Your task to perform on an android device: empty trash in the gmail app Image 0: 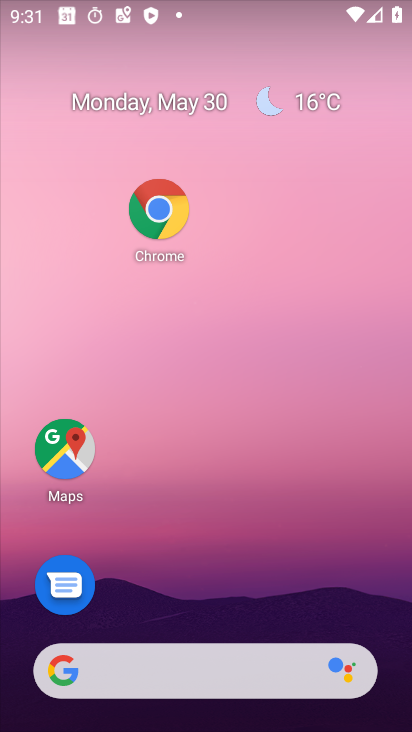
Step 0: drag from (198, 602) to (401, 95)
Your task to perform on an android device: empty trash in the gmail app Image 1: 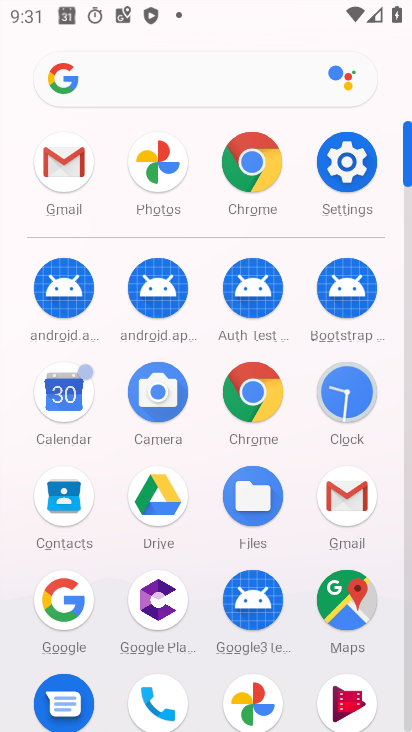
Step 1: click (339, 491)
Your task to perform on an android device: empty trash in the gmail app Image 2: 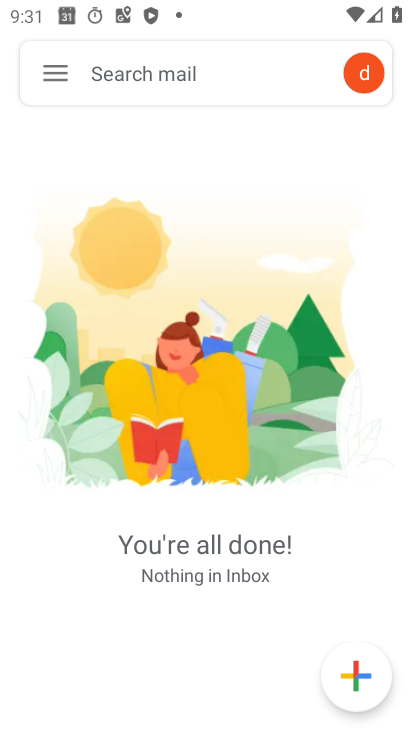
Step 2: click (52, 76)
Your task to perform on an android device: empty trash in the gmail app Image 3: 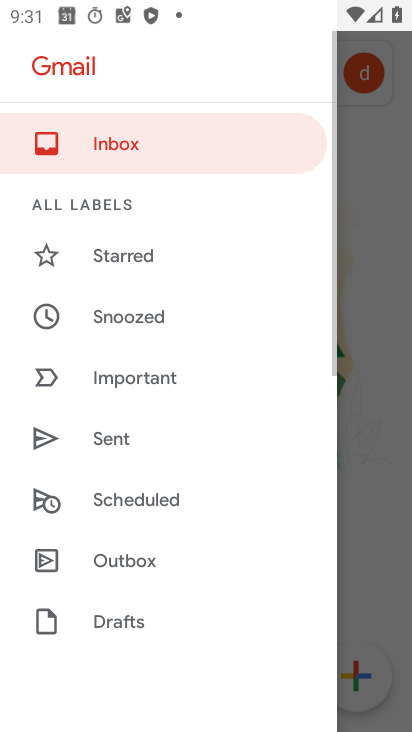
Step 3: drag from (157, 605) to (274, 0)
Your task to perform on an android device: empty trash in the gmail app Image 4: 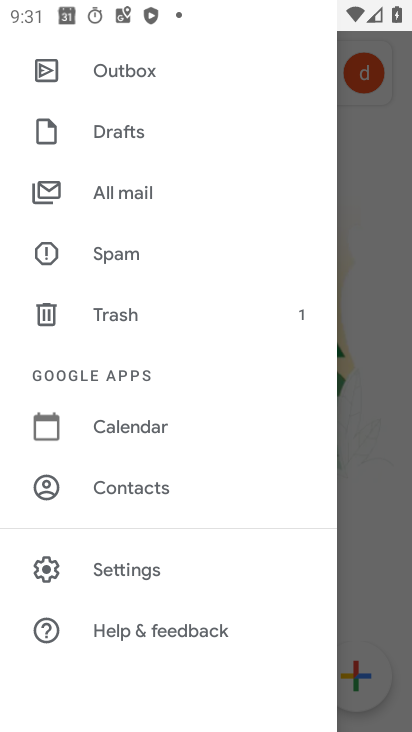
Step 4: click (124, 310)
Your task to perform on an android device: empty trash in the gmail app Image 5: 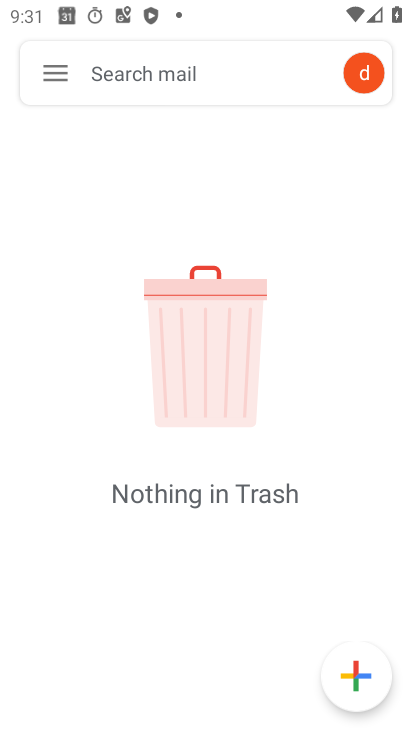
Step 5: task complete